Your task to perform on an android device: Open notification settings Image 0: 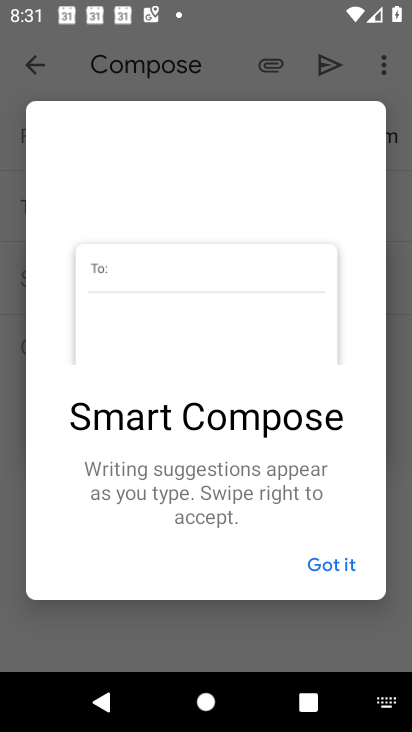
Step 0: press home button
Your task to perform on an android device: Open notification settings Image 1: 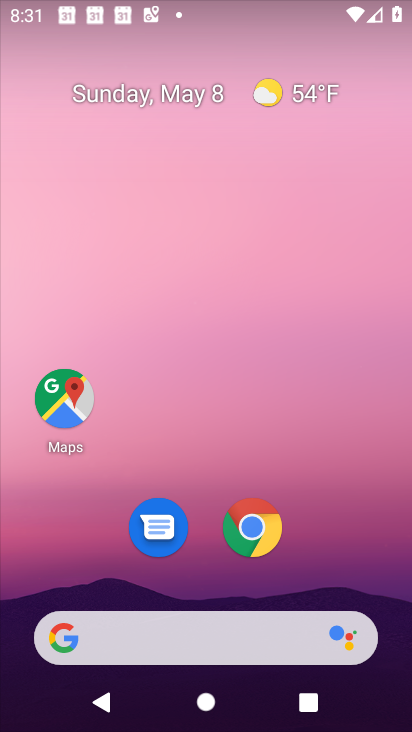
Step 1: drag from (324, 574) to (254, 159)
Your task to perform on an android device: Open notification settings Image 2: 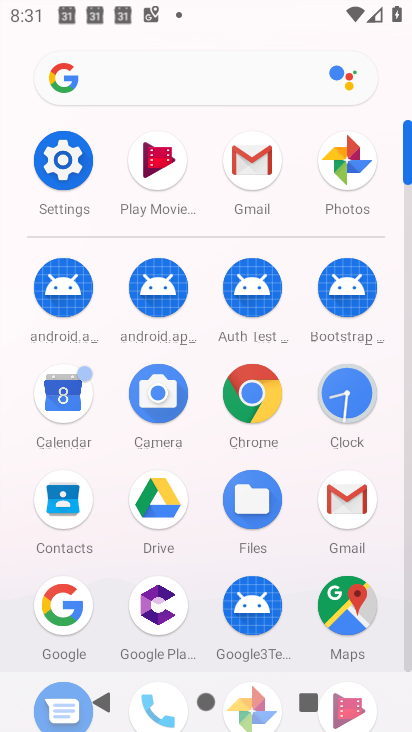
Step 2: click (84, 173)
Your task to perform on an android device: Open notification settings Image 3: 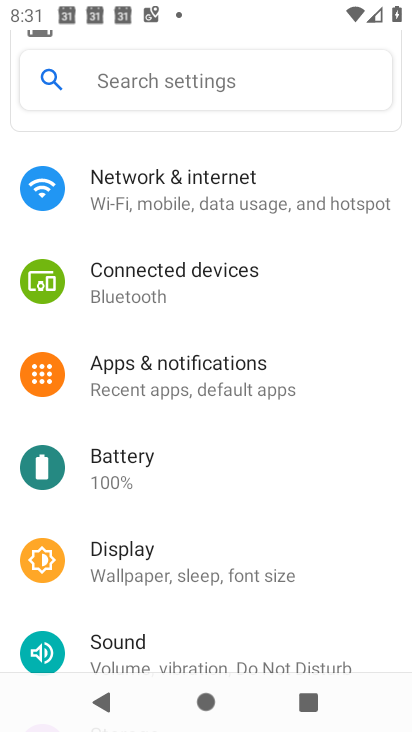
Step 3: click (145, 383)
Your task to perform on an android device: Open notification settings Image 4: 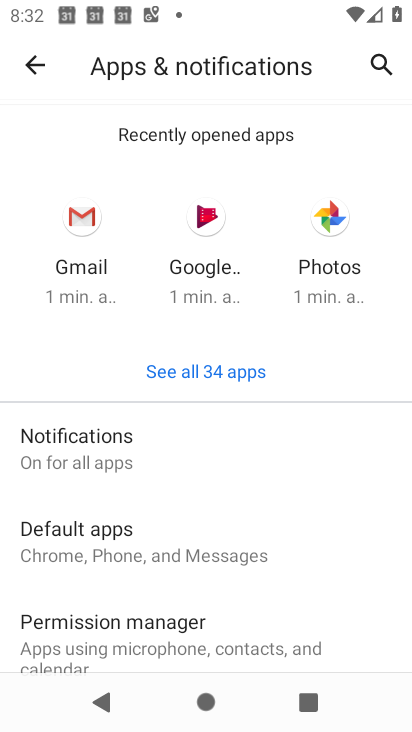
Step 4: click (187, 455)
Your task to perform on an android device: Open notification settings Image 5: 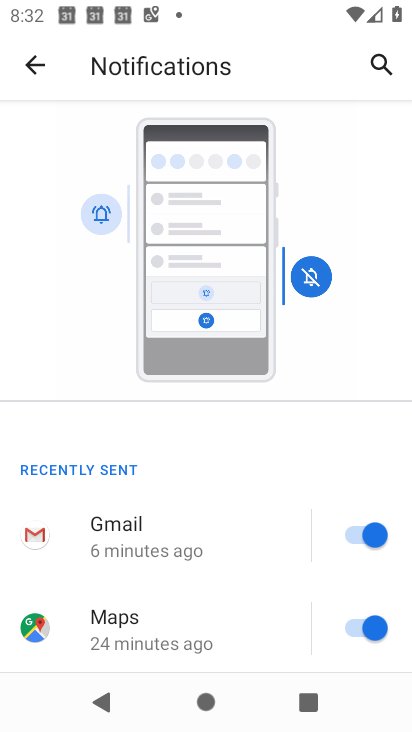
Step 5: task complete